Your task to perform on an android device: Open battery settings Image 0: 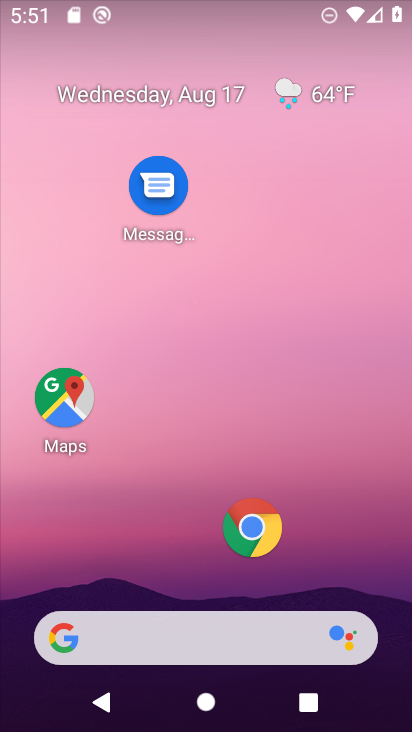
Step 0: drag from (237, 614) to (258, 189)
Your task to perform on an android device: Open battery settings Image 1: 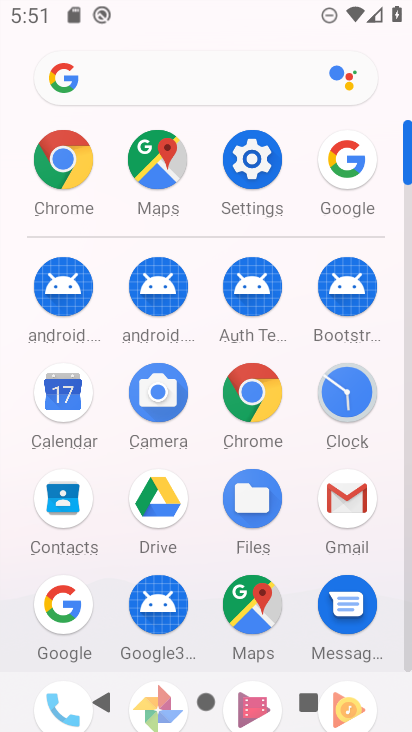
Step 1: click (262, 155)
Your task to perform on an android device: Open battery settings Image 2: 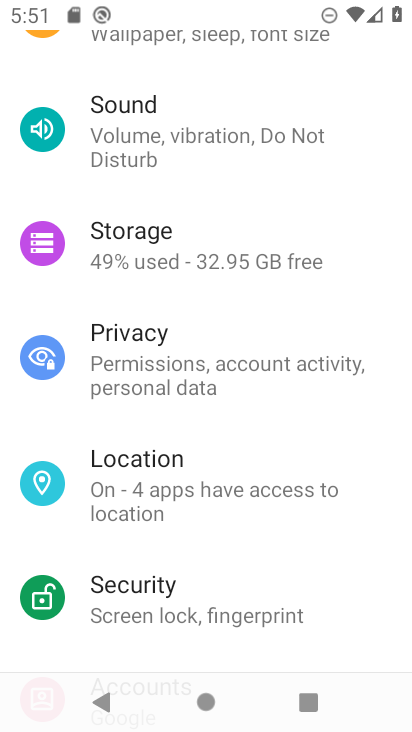
Step 2: drag from (156, 580) to (156, 292)
Your task to perform on an android device: Open battery settings Image 3: 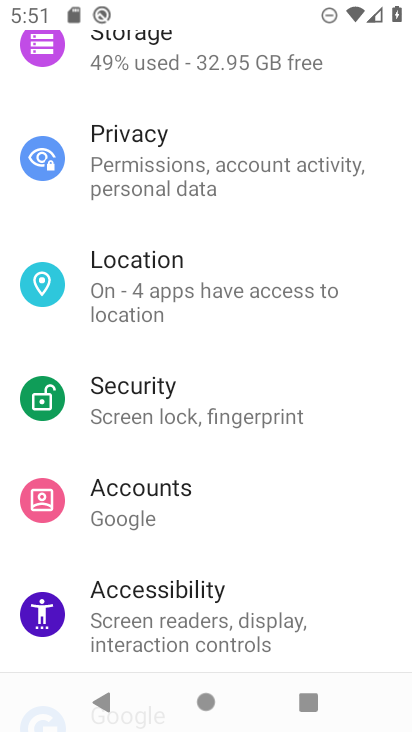
Step 3: drag from (151, 614) to (139, 334)
Your task to perform on an android device: Open battery settings Image 4: 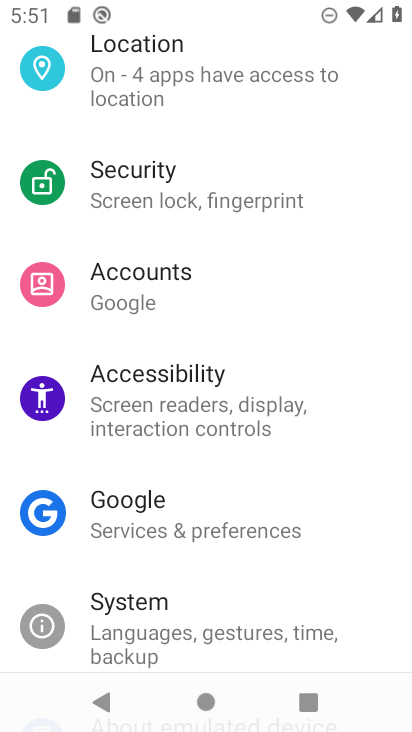
Step 4: drag from (145, 143) to (150, 516)
Your task to perform on an android device: Open battery settings Image 5: 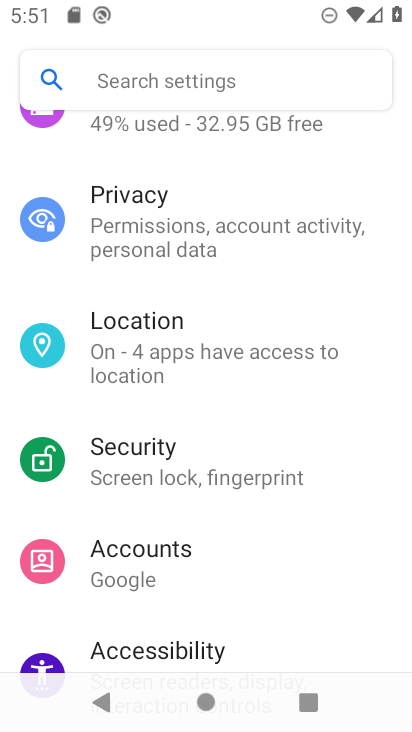
Step 5: drag from (169, 162) to (167, 526)
Your task to perform on an android device: Open battery settings Image 6: 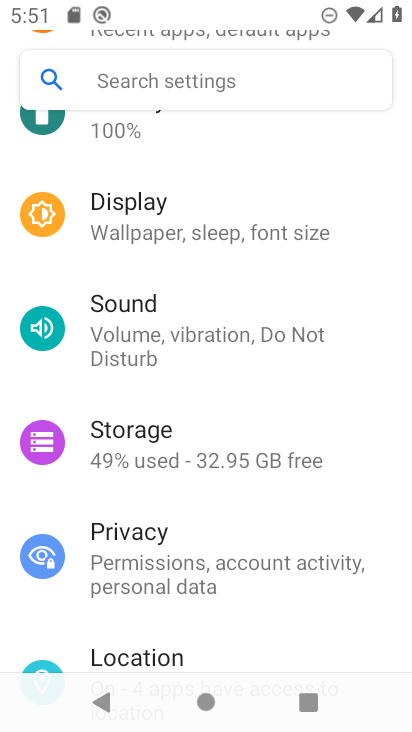
Step 6: drag from (121, 158) to (173, 614)
Your task to perform on an android device: Open battery settings Image 7: 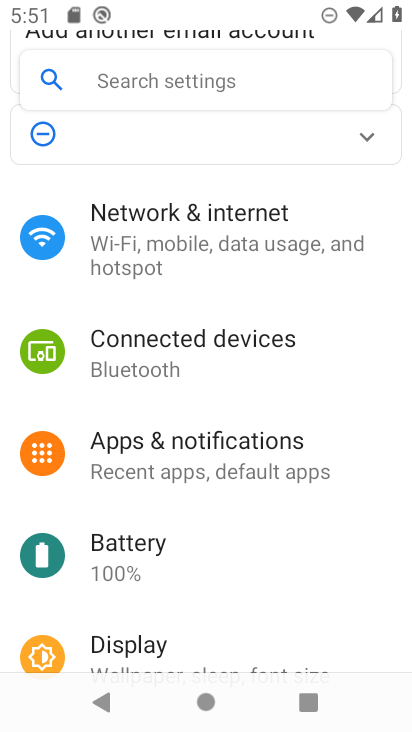
Step 7: click (155, 664)
Your task to perform on an android device: Open battery settings Image 8: 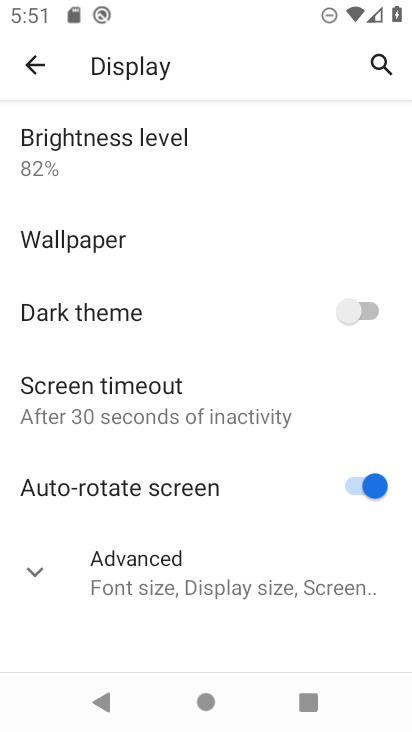
Step 8: click (45, 65)
Your task to perform on an android device: Open battery settings Image 9: 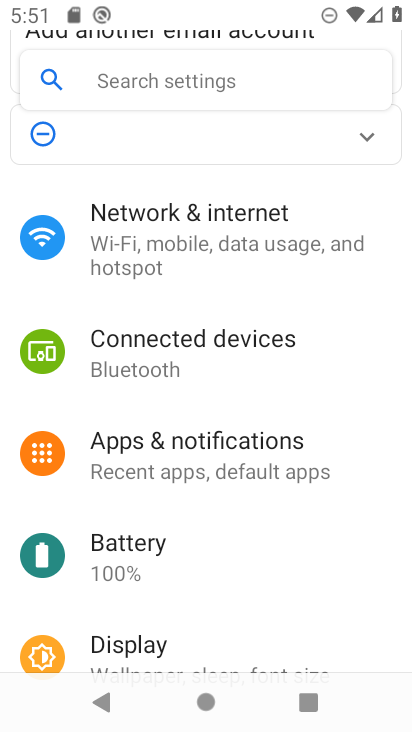
Step 9: click (144, 573)
Your task to perform on an android device: Open battery settings Image 10: 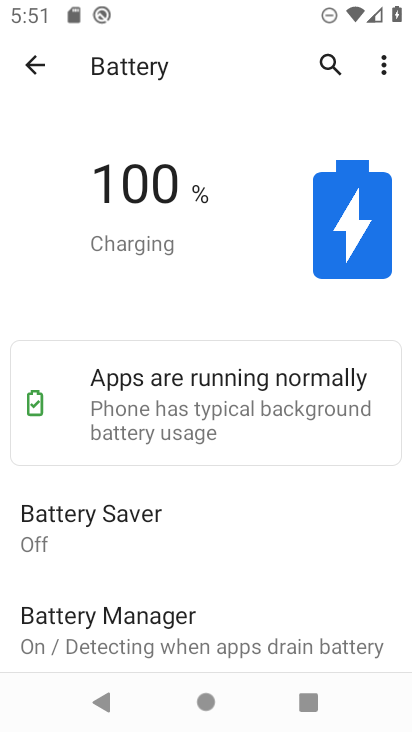
Step 10: task complete